Your task to perform on an android device: Open CNN.com Image 0: 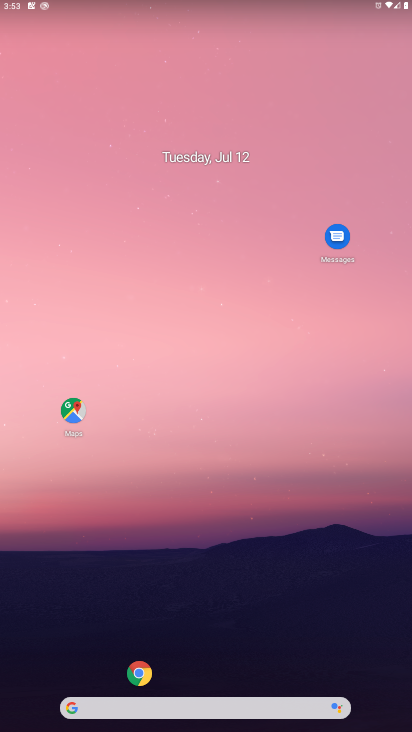
Step 0: click (113, 699)
Your task to perform on an android device: Open CNN.com Image 1: 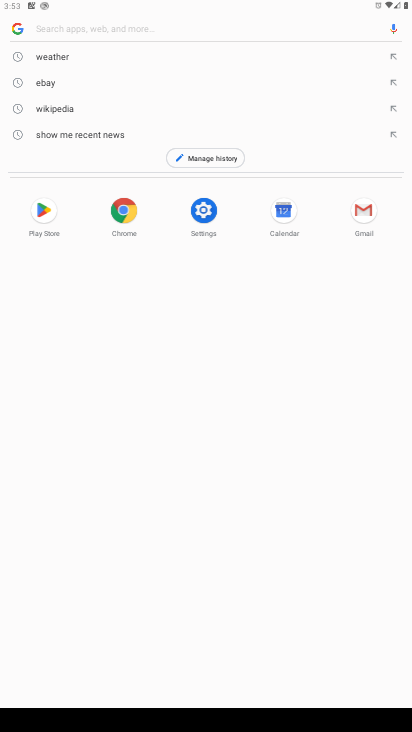
Step 1: type "CNN.com"
Your task to perform on an android device: Open CNN.com Image 2: 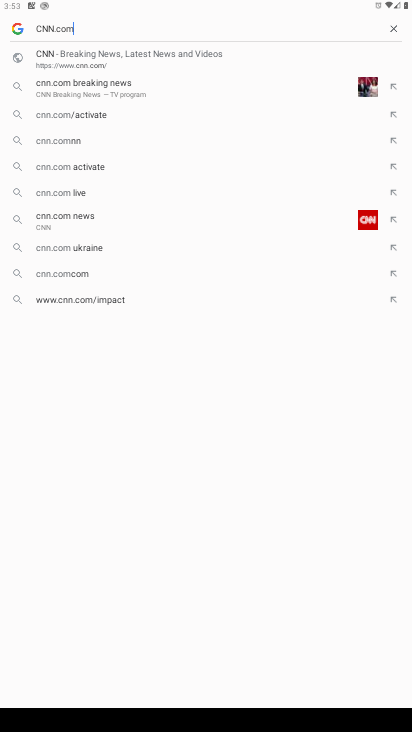
Step 2: type ""
Your task to perform on an android device: Open CNN.com Image 3: 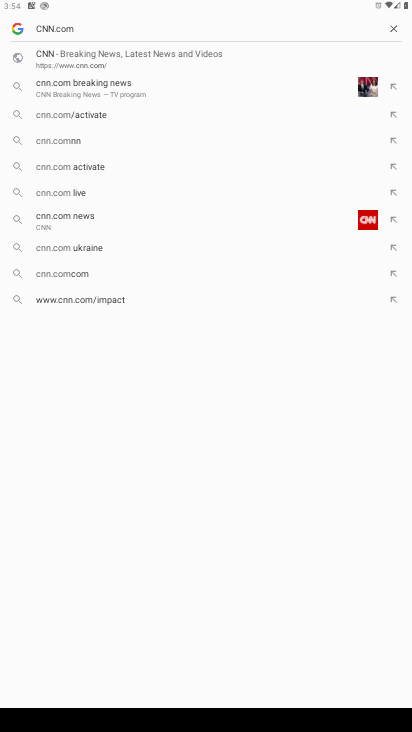
Step 3: task complete